Your task to perform on an android device: Check the news Image 0: 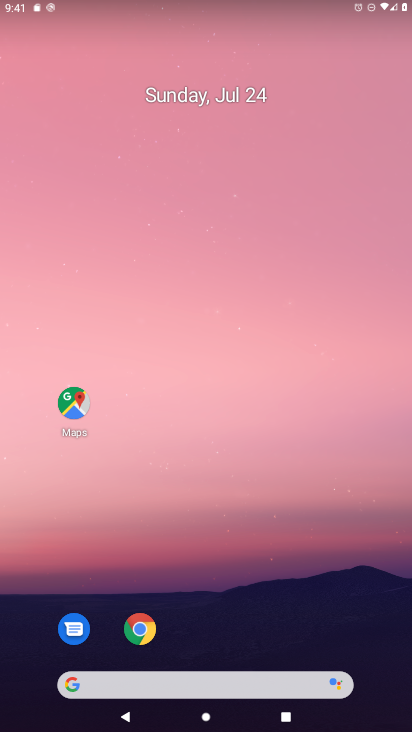
Step 0: drag from (178, 82) to (145, 29)
Your task to perform on an android device: Check the news Image 1: 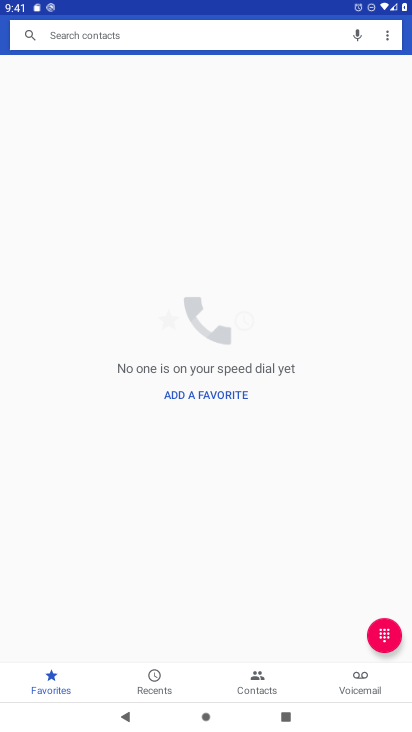
Step 1: press home button
Your task to perform on an android device: Check the news Image 2: 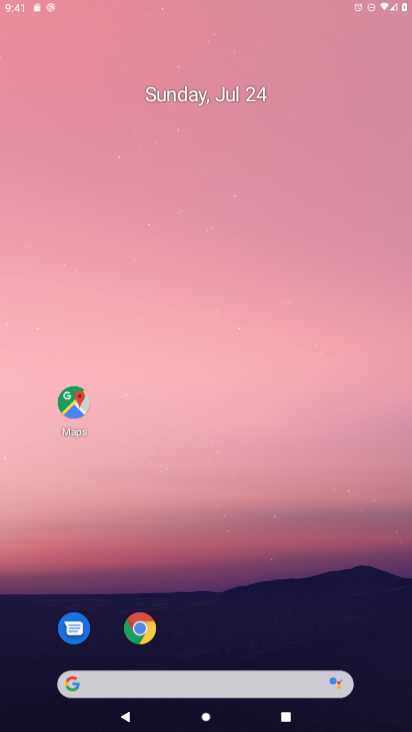
Step 2: drag from (347, 642) to (123, 24)
Your task to perform on an android device: Check the news Image 3: 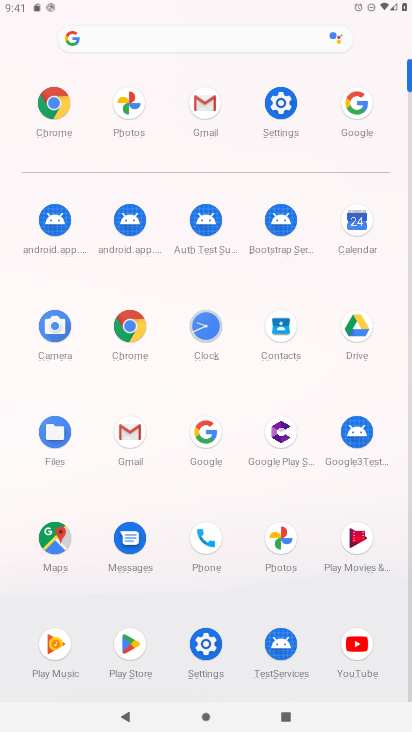
Step 3: click (194, 445)
Your task to perform on an android device: Check the news Image 4: 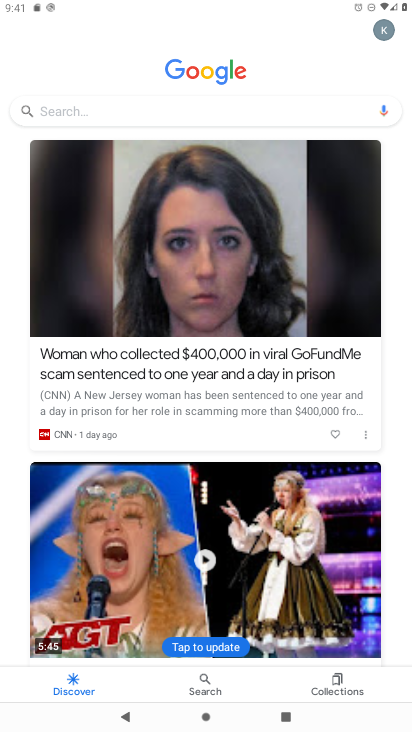
Step 4: click (92, 110)
Your task to perform on an android device: Check the news Image 5: 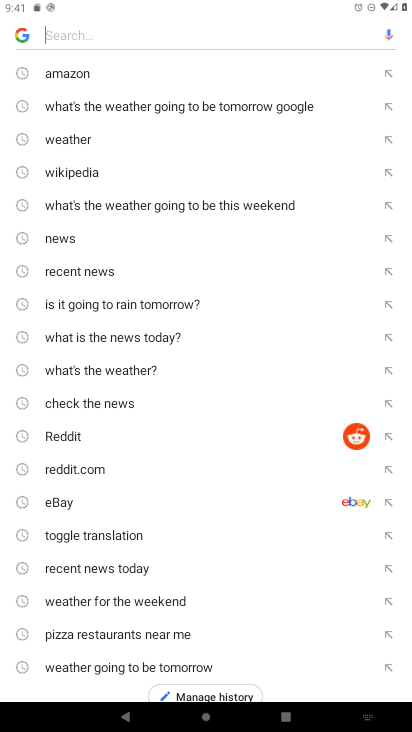
Step 5: click (75, 241)
Your task to perform on an android device: Check the news Image 6: 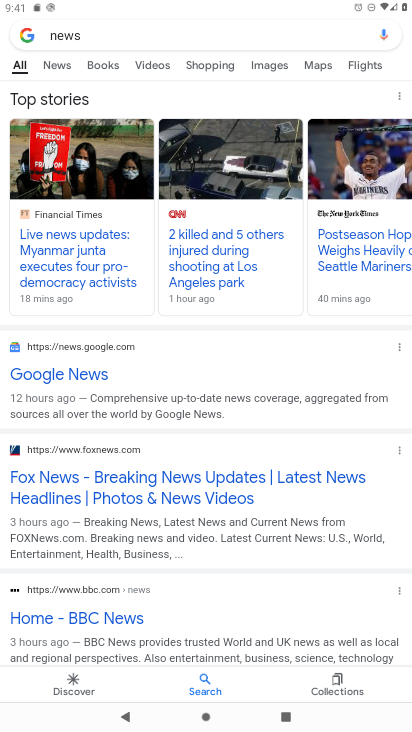
Step 6: task complete